Your task to perform on an android device: open app "Booking.com: Hotels and more" (install if not already installed) Image 0: 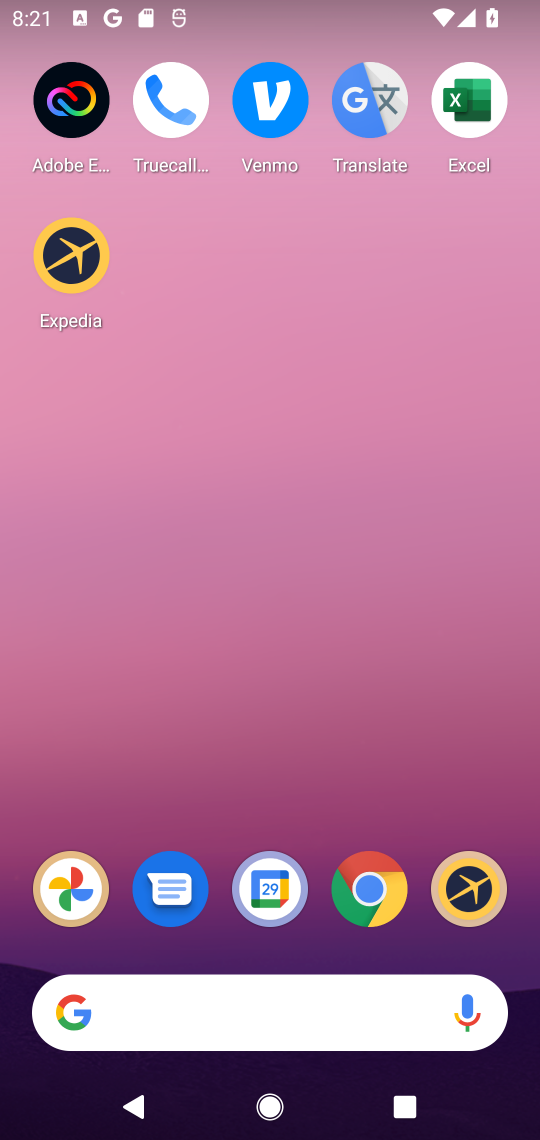
Step 0: press home button
Your task to perform on an android device: open app "Booking.com: Hotels and more" (install if not already installed) Image 1: 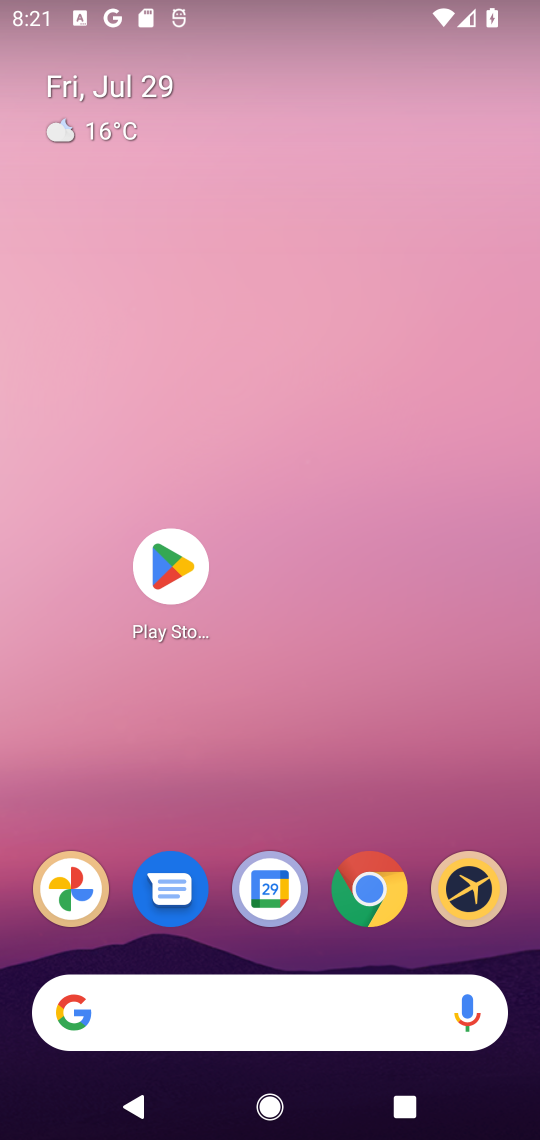
Step 1: click (166, 572)
Your task to perform on an android device: open app "Booking.com: Hotels and more" (install if not already installed) Image 2: 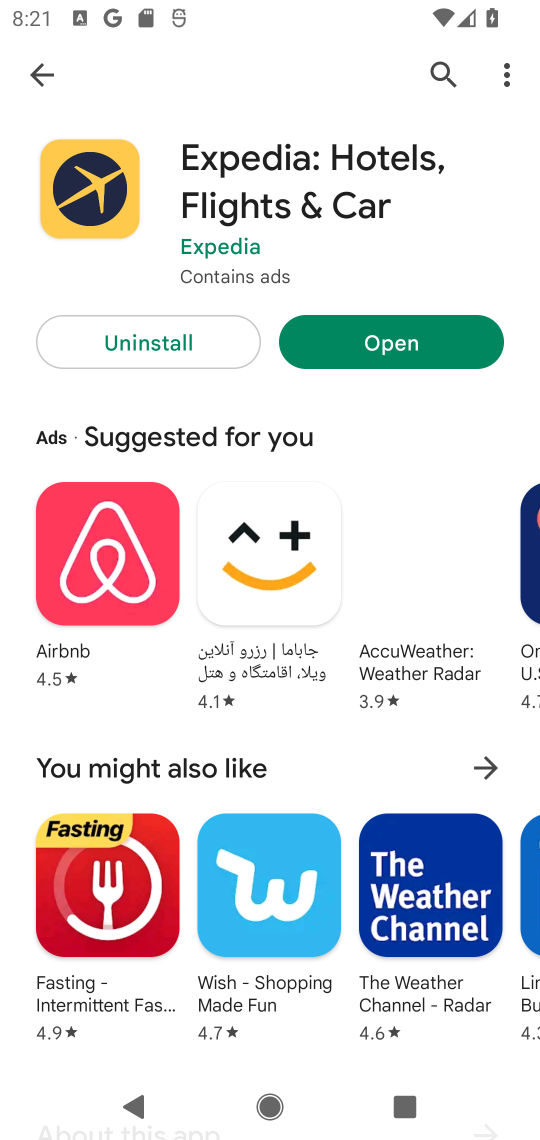
Step 2: click (442, 69)
Your task to perform on an android device: open app "Booking.com: Hotels and more" (install if not already installed) Image 3: 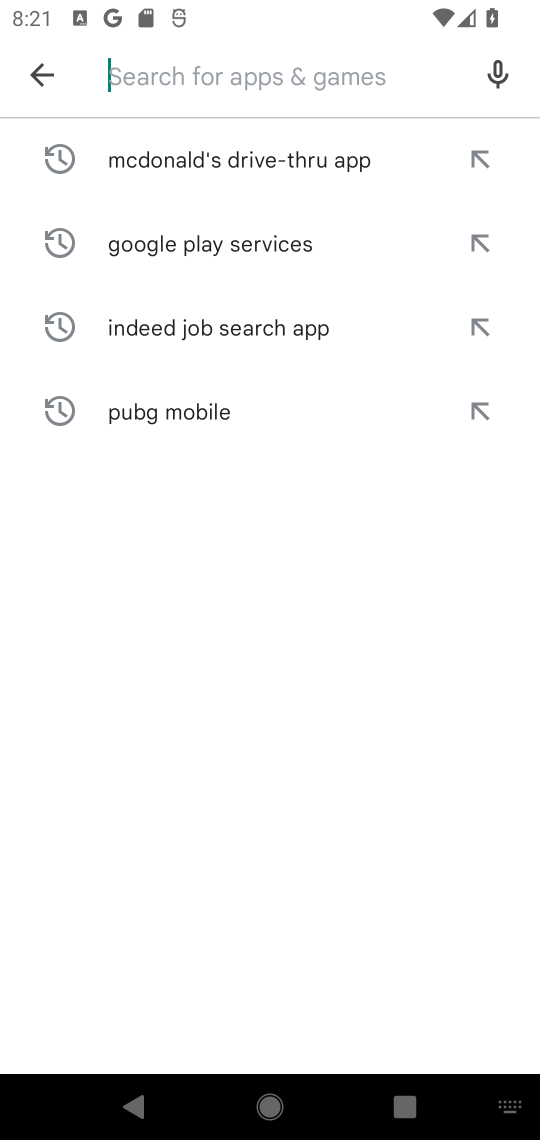
Step 3: type "Booking.com: Hotels and more"
Your task to perform on an android device: open app "Booking.com: Hotels and more" (install if not already installed) Image 4: 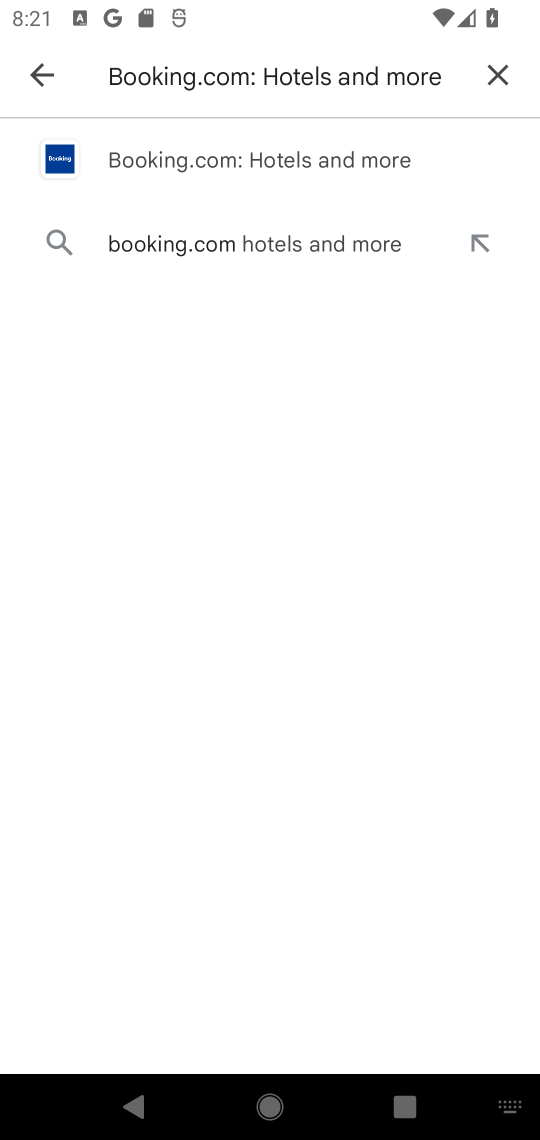
Step 4: click (333, 160)
Your task to perform on an android device: open app "Booking.com: Hotels and more" (install if not already installed) Image 5: 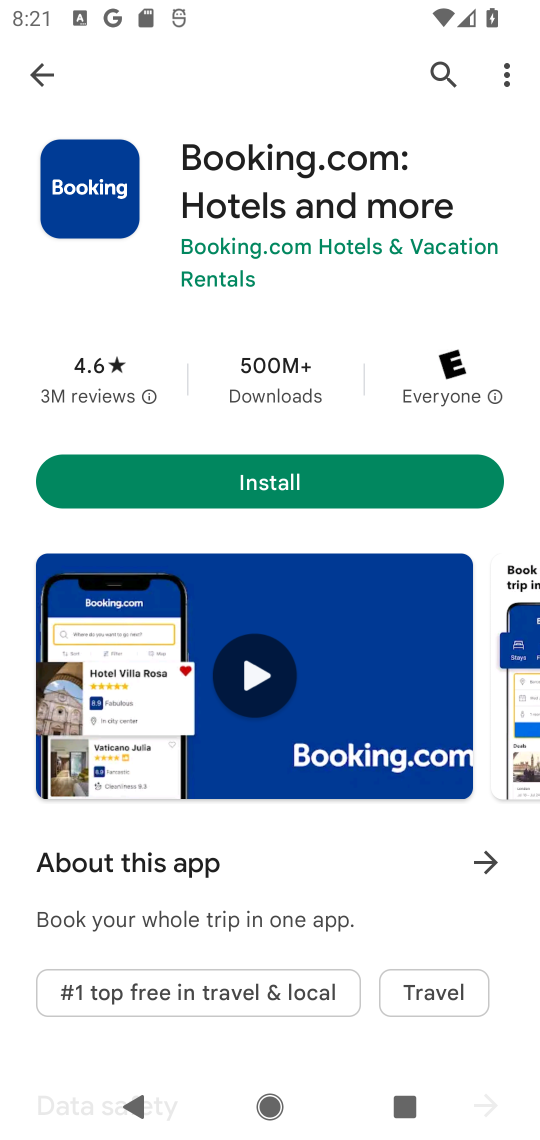
Step 5: click (281, 482)
Your task to perform on an android device: open app "Booking.com: Hotels and more" (install if not already installed) Image 6: 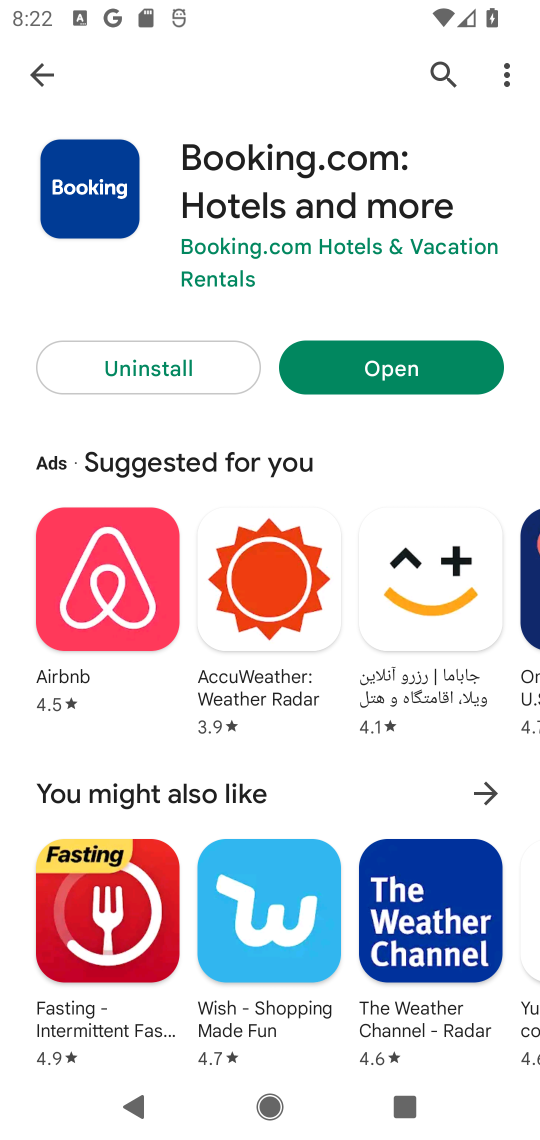
Step 6: click (409, 371)
Your task to perform on an android device: open app "Booking.com: Hotels and more" (install if not already installed) Image 7: 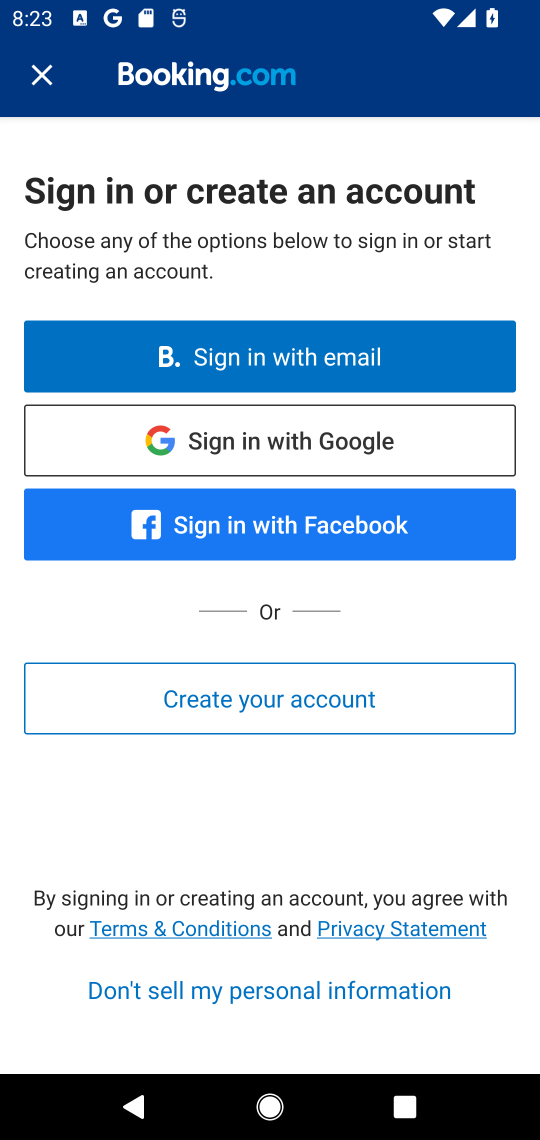
Step 7: task complete